Your task to perform on an android device: Clear the cart on costco. Image 0: 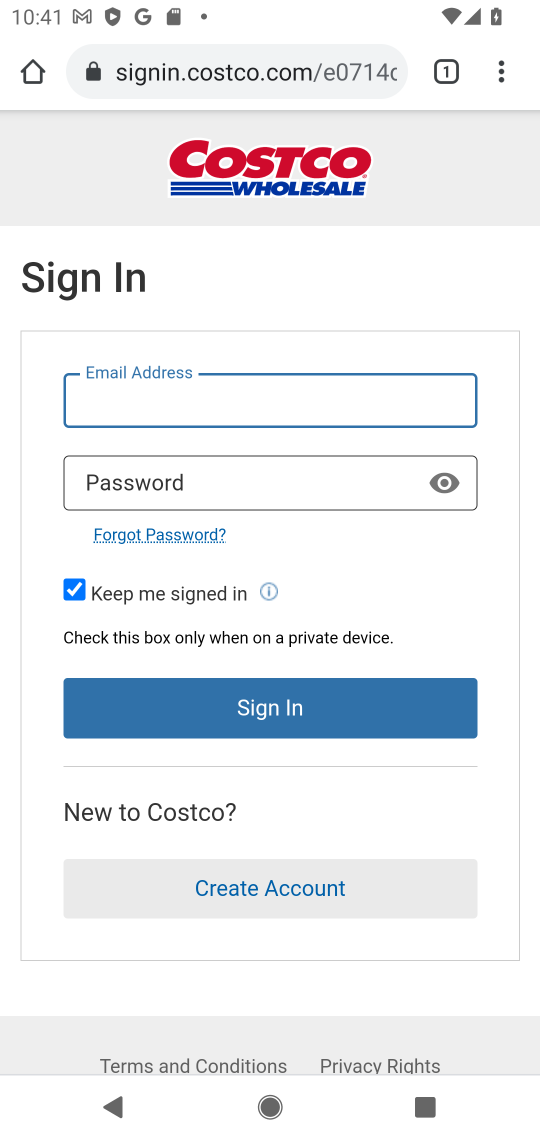
Step 0: click (280, 163)
Your task to perform on an android device: Clear the cart on costco. Image 1: 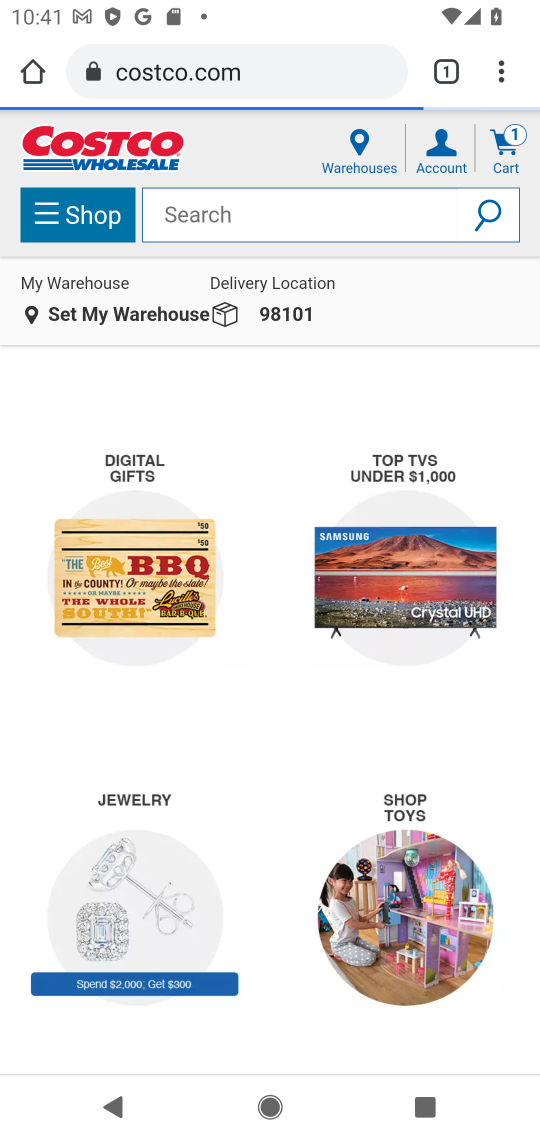
Step 1: click (509, 145)
Your task to perform on an android device: Clear the cart on costco. Image 2: 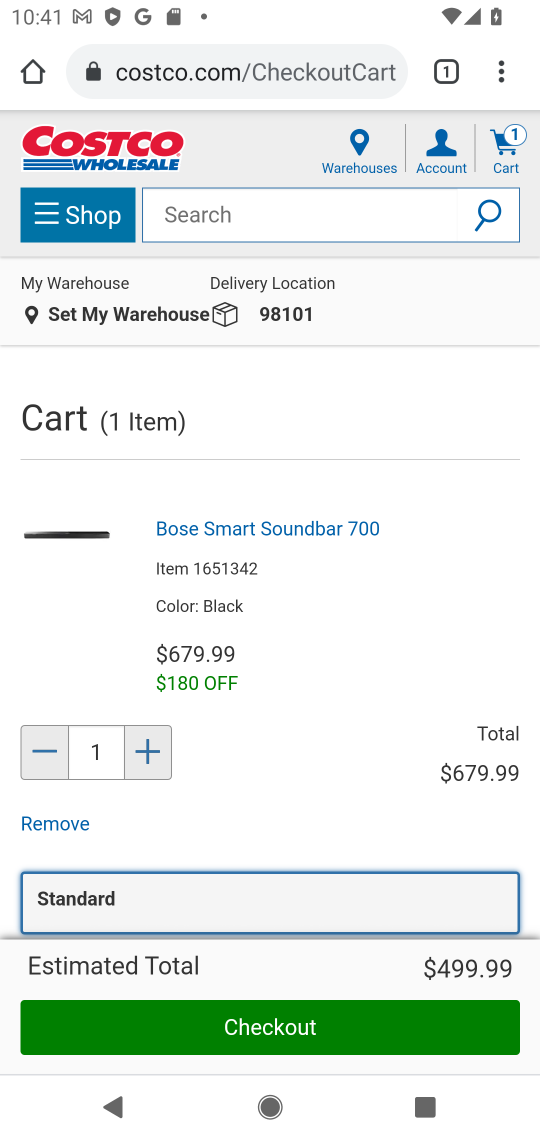
Step 2: click (50, 824)
Your task to perform on an android device: Clear the cart on costco. Image 3: 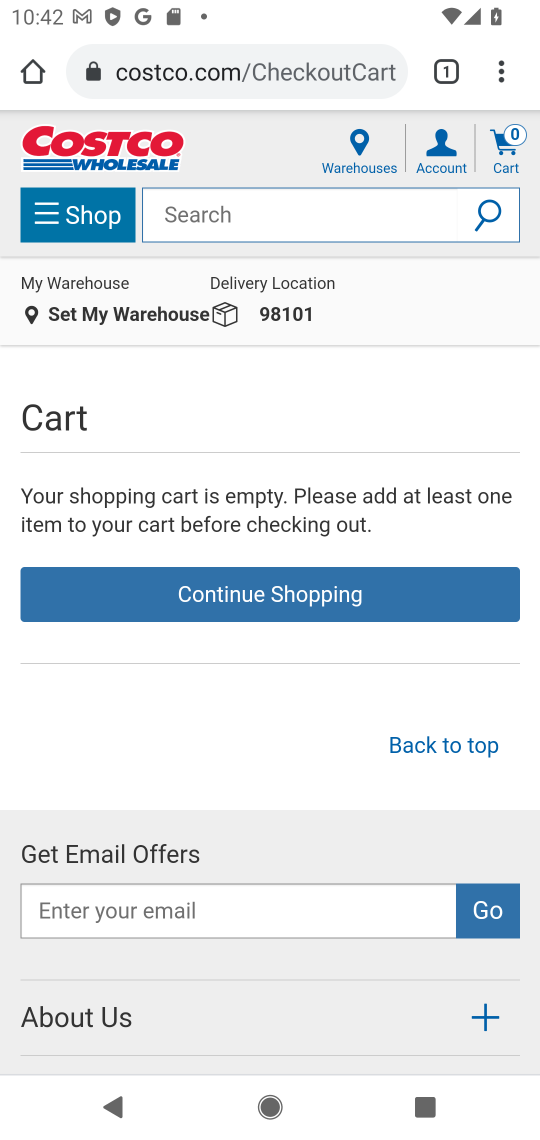
Step 3: task complete